Your task to perform on an android device: Go to accessibility settings Image 0: 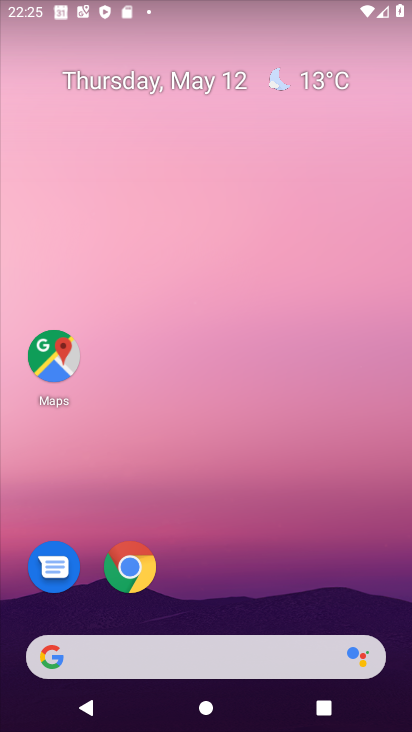
Step 0: click (211, 246)
Your task to perform on an android device: Go to accessibility settings Image 1: 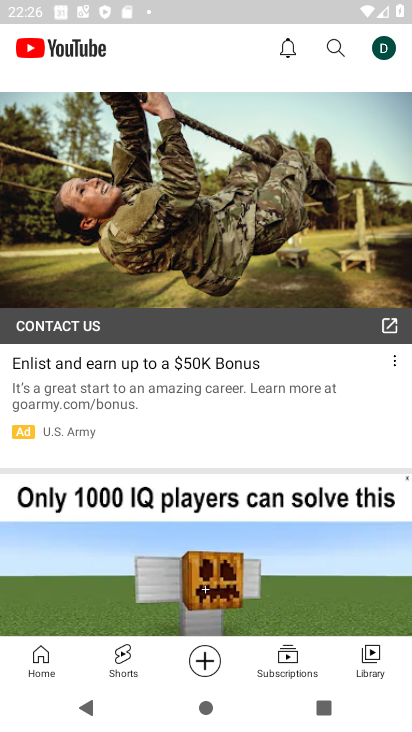
Step 1: press home button
Your task to perform on an android device: Go to accessibility settings Image 2: 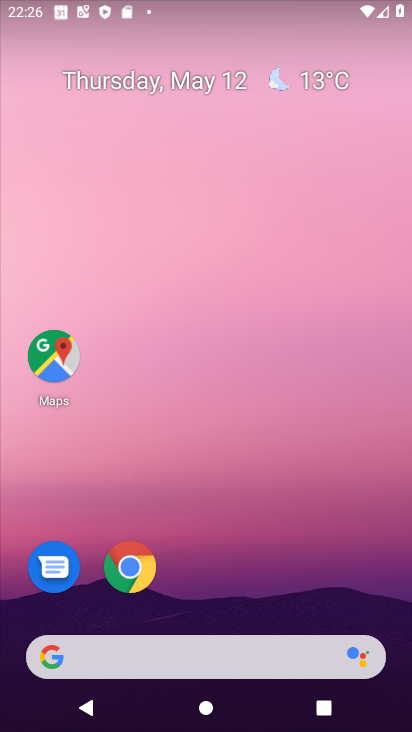
Step 2: drag from (209, 618) to (264, 209)
Your task to perform on an android device: Go to accessibility settings Image 3: 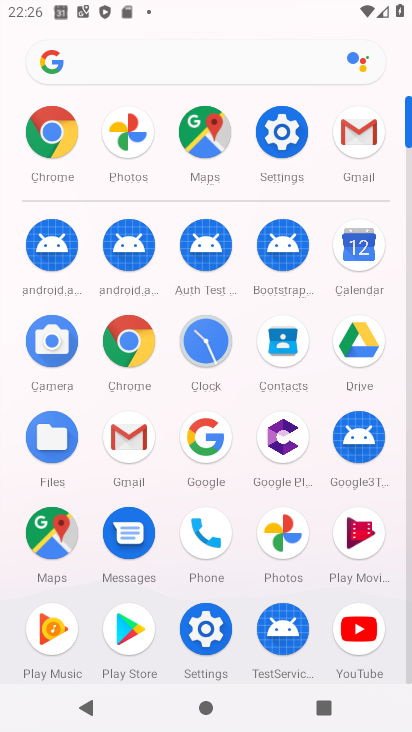
Step 3: click (201, 624)
Your task to perform on an android device: Go to accessibility settings Image 4: 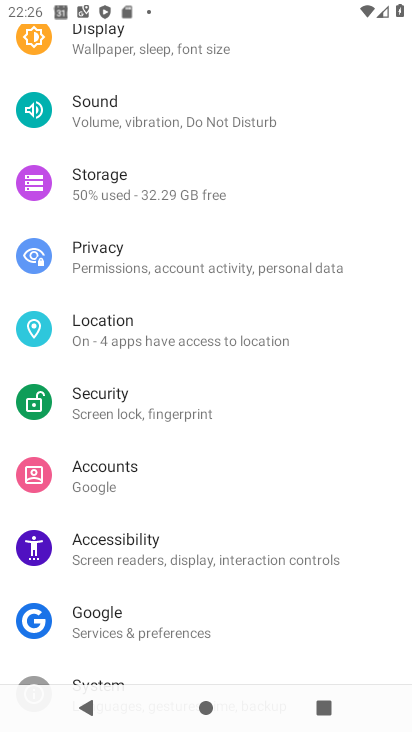
Step 4: click (152, 533)
Your task to perform on an android device: Go to accessibility settings Image 5: 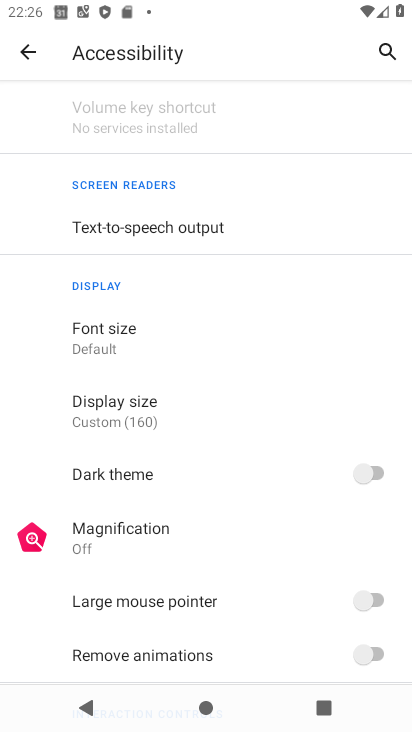
Step 5: task complete